Your task to perform on an android device: Add "macbook" to the cart on ebay.com Image 0: 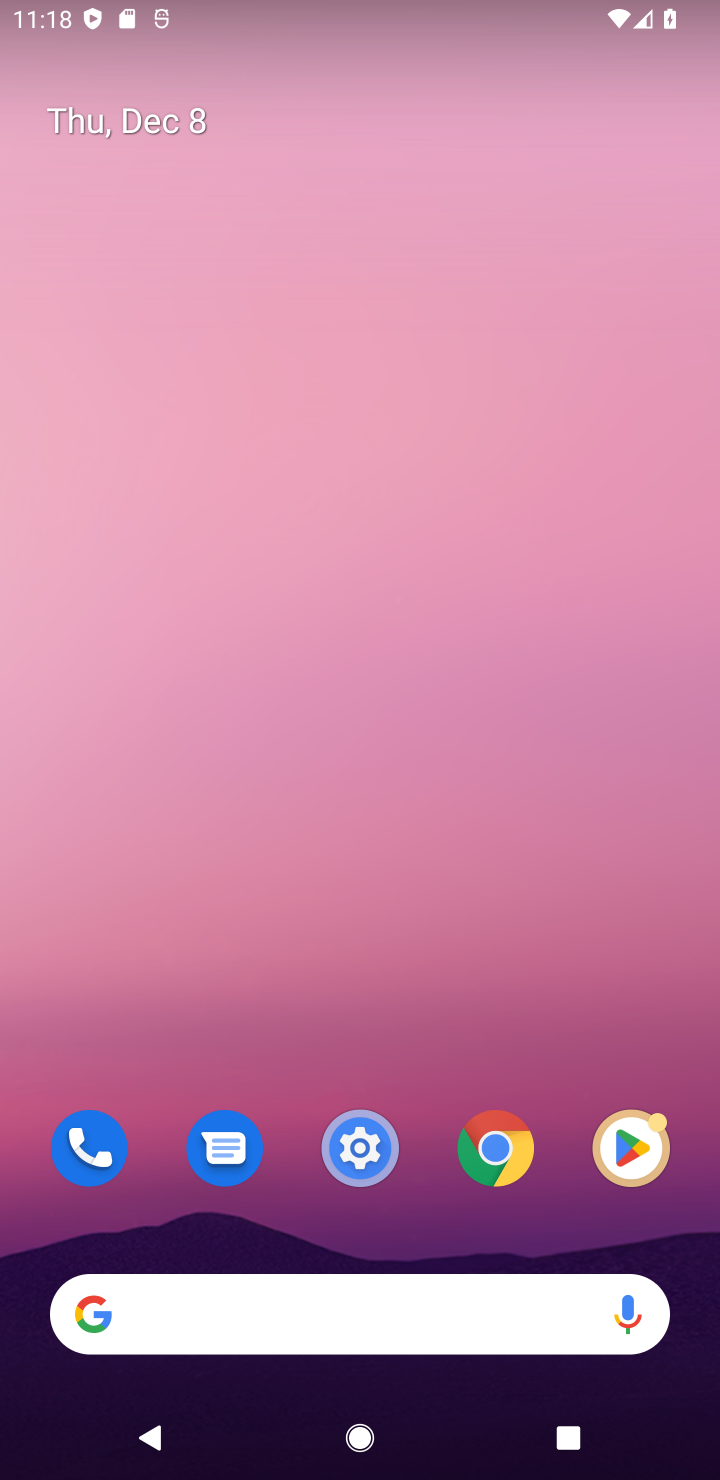
Step 0: click (319, 1310)
Your task to perform on an android device: Add "macbook" to the cart on ebay.com Image 1: 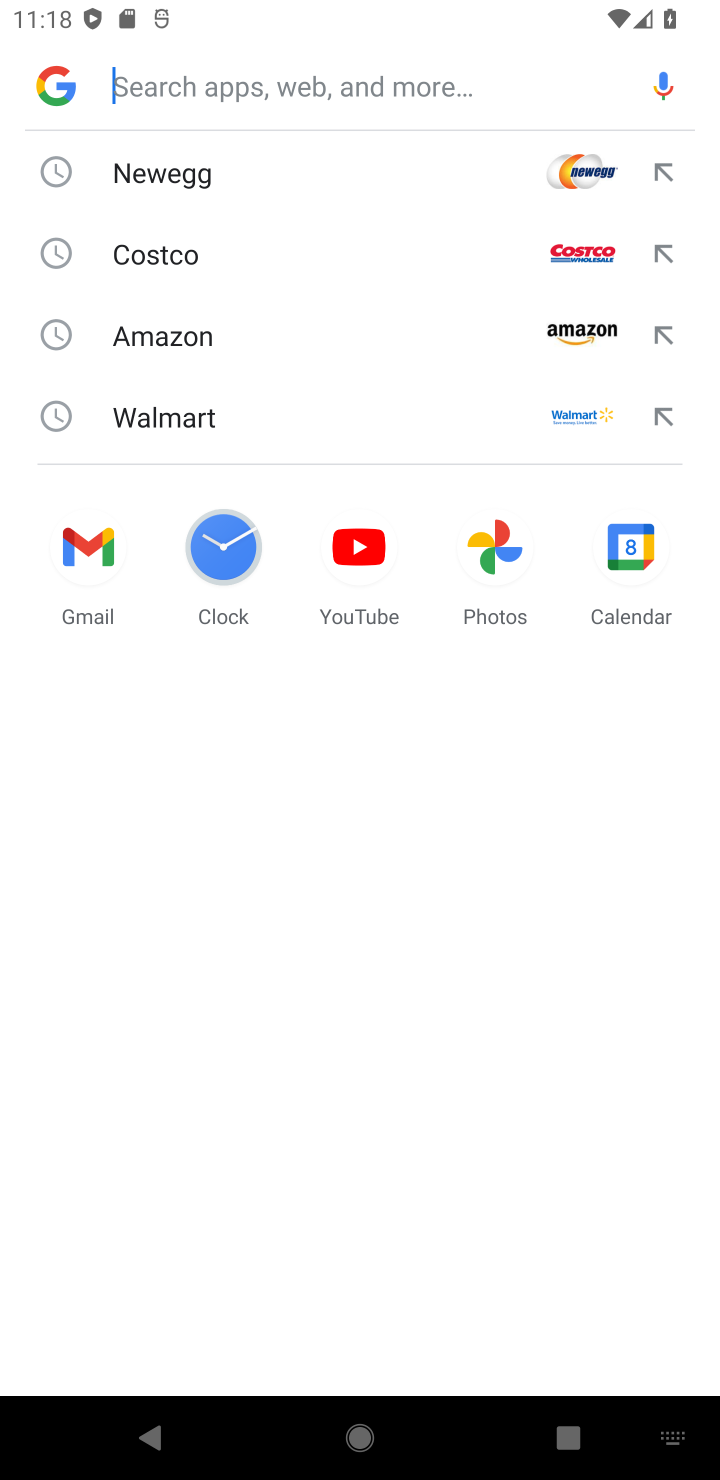
Step 1: type "ebay"
Your task to perform on an android device: Add "macbook" to the cart on ebay.com Image 2: 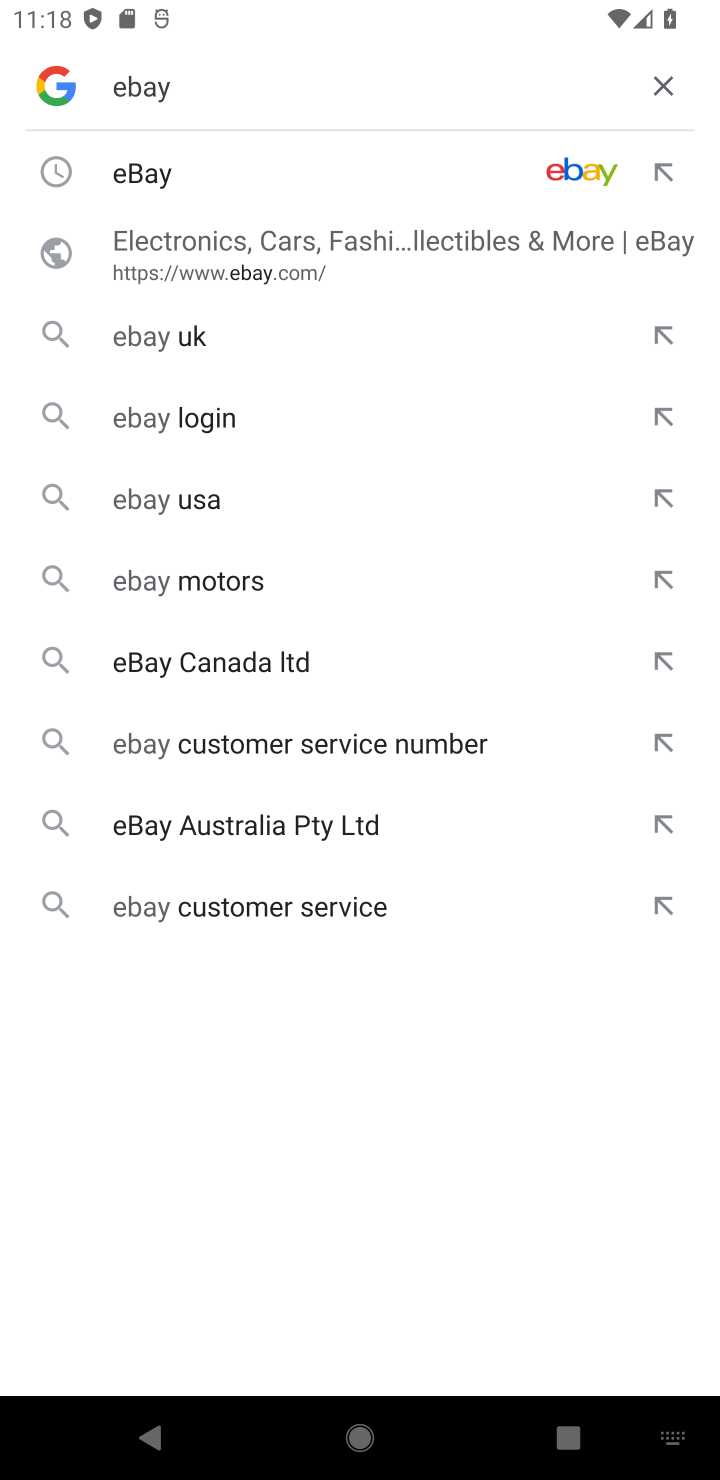
Step 2: click (142, 170)
Your task to perform on an android device: Add "macbook" to the cart on ebay.com Image 3: 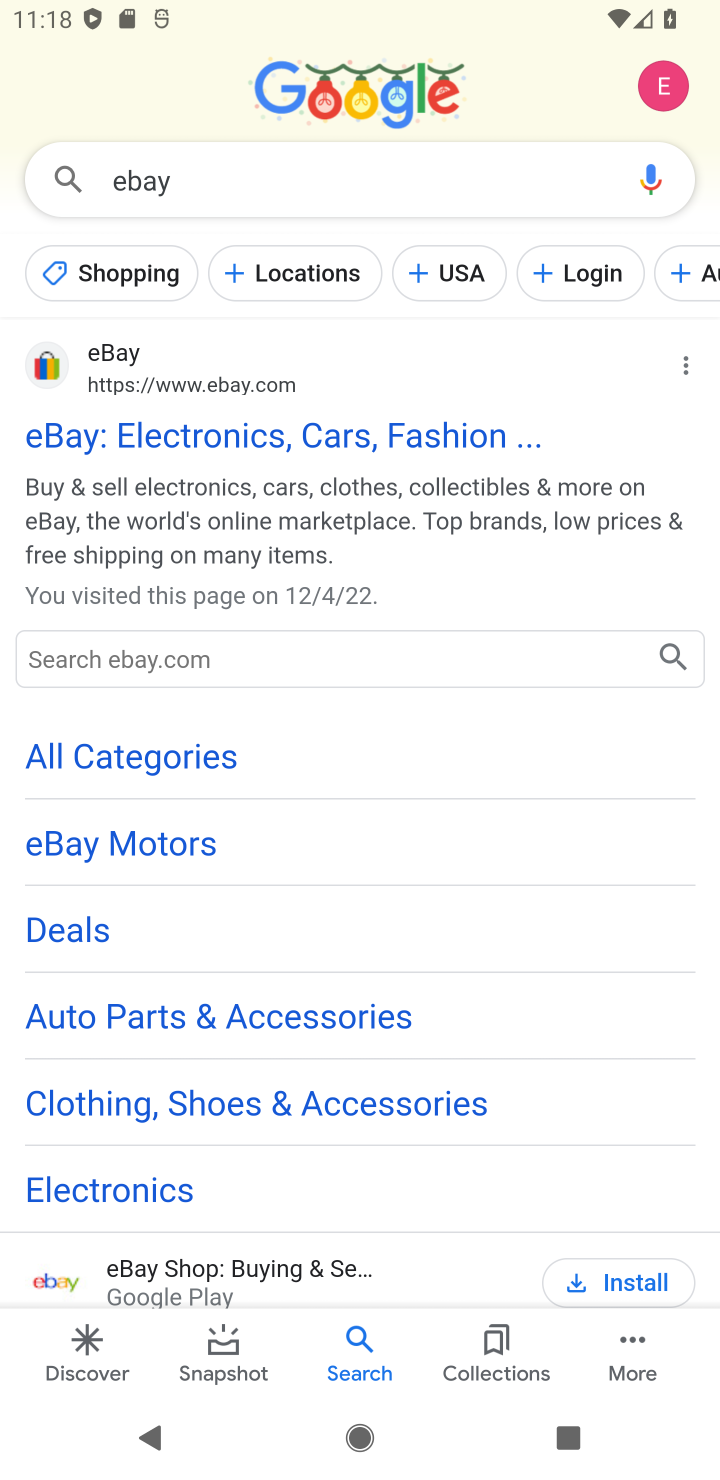
Step 3: click (133, 352)
Your task to perform on an android device: Add "macbook" to the cart on ebay.com Image 4: 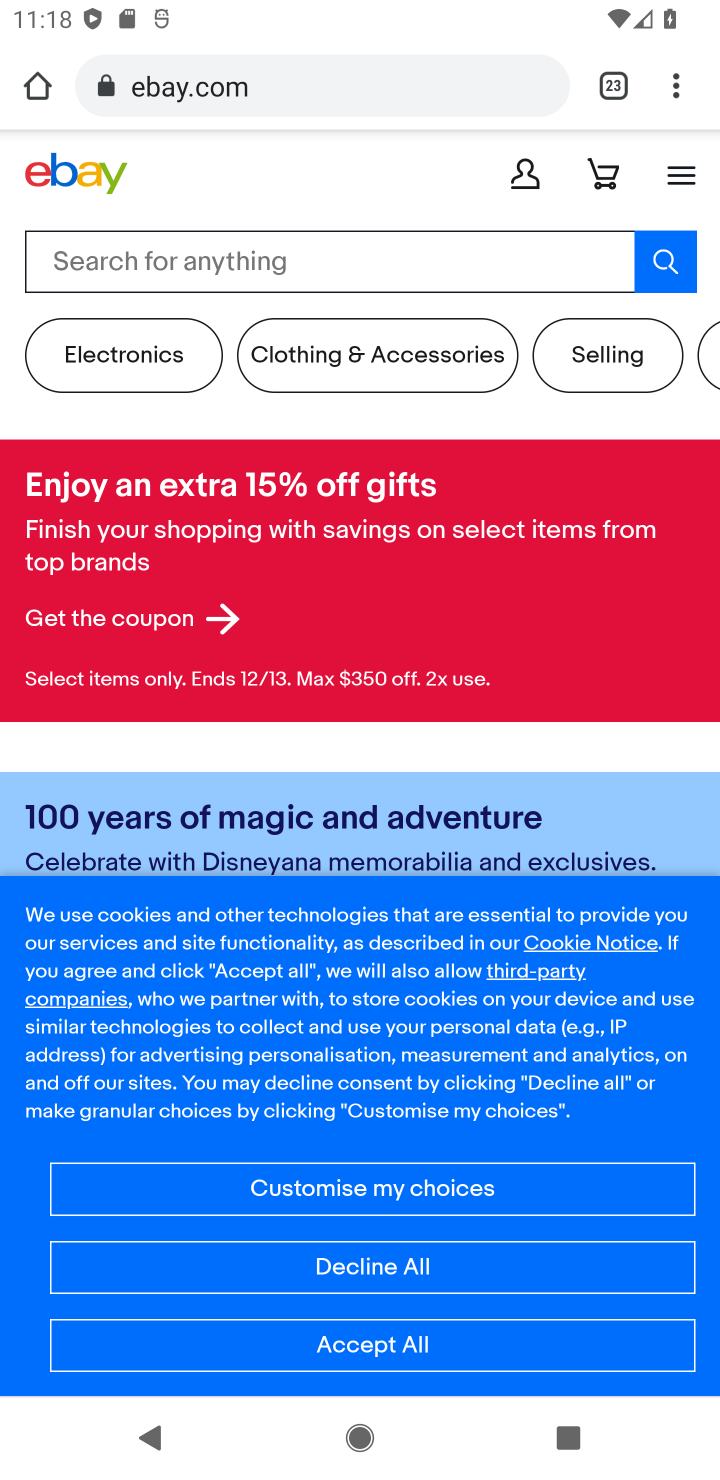
Step 4: click (280, 240)
Your task to perform on an android device: Add "macbook" to the cart on ebay.com Image 5: 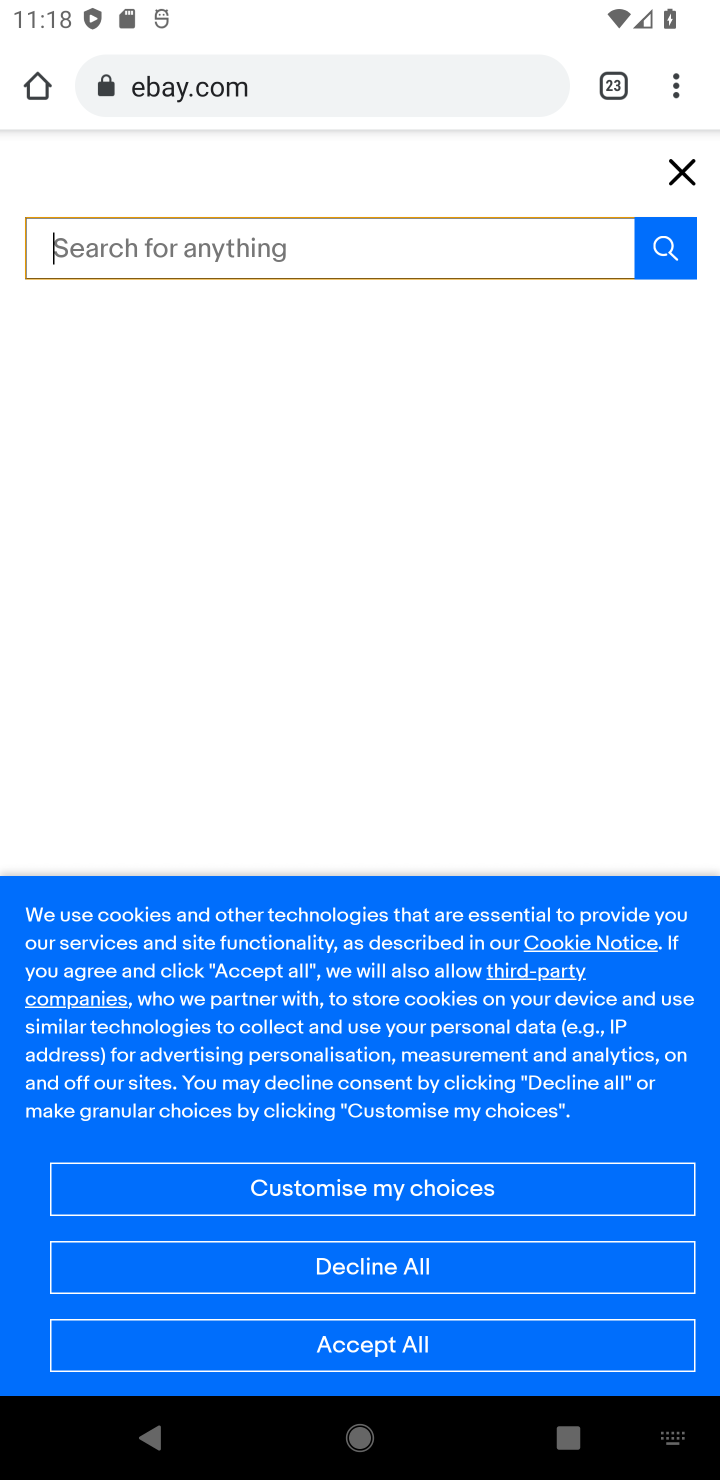
Step 5: type "macbook"
Your task to perform on an android device: Add "macbook" to the cart on ebay.com Image 6: 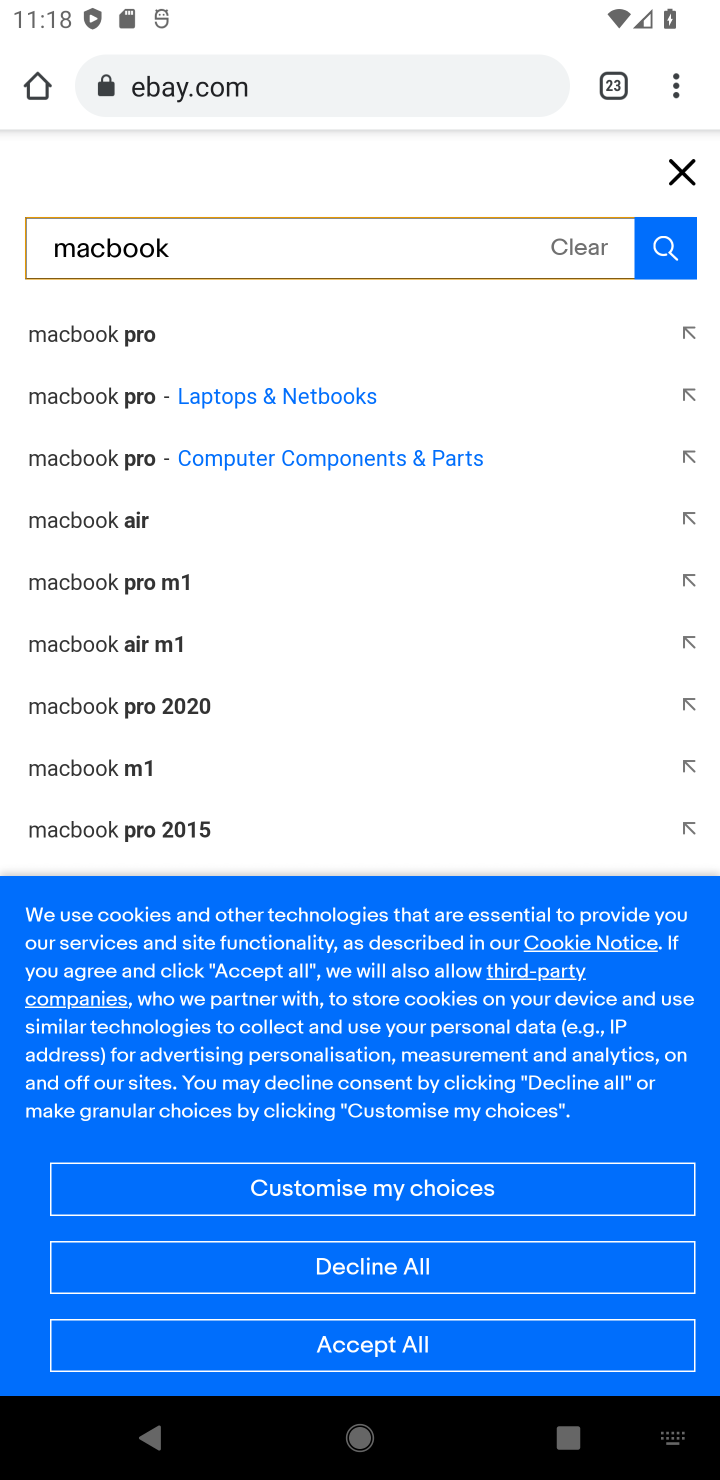
Step 6: click (649, 260)
Your task to perform on an android device: Add "macbook" to the cart on ebay.com Image 7: 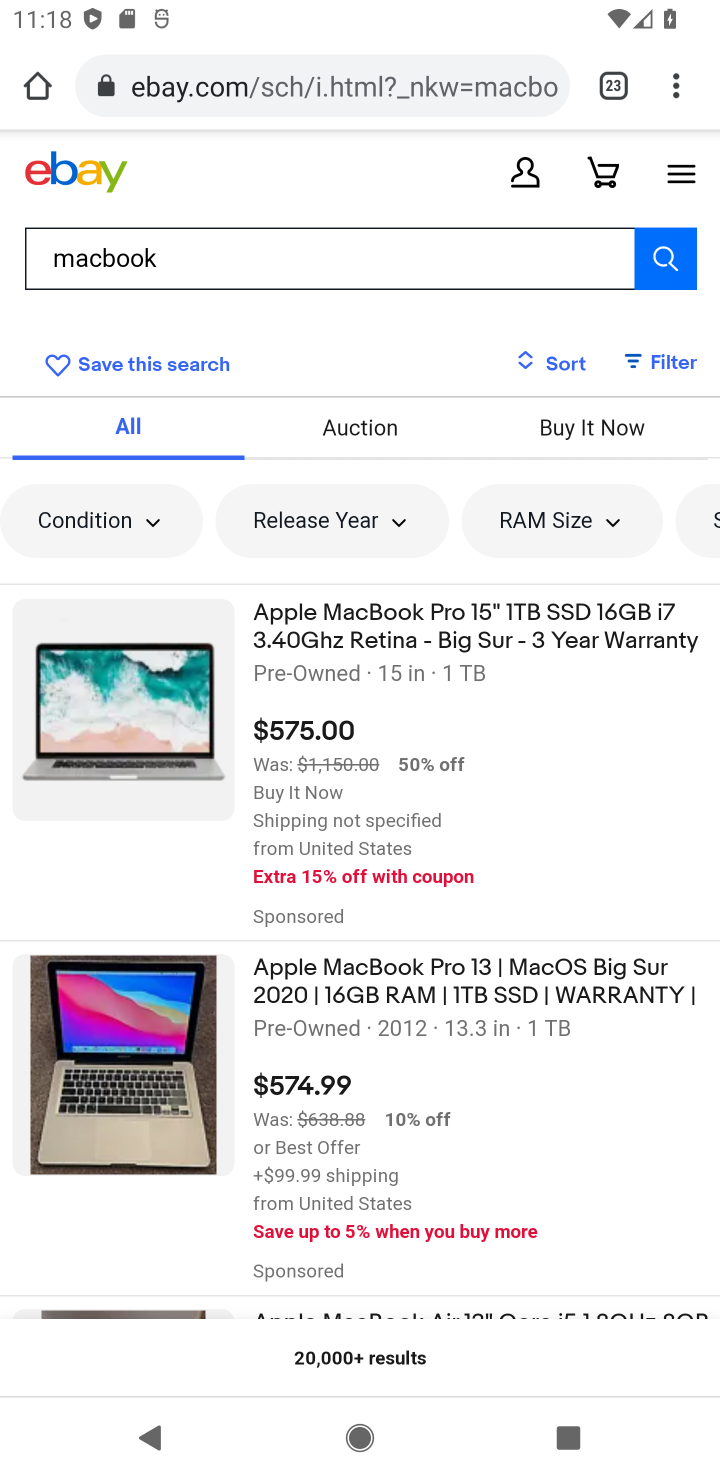
Step 7: click (396, 610)
Your task to perform on an android device: Add "macbook" to the cart on ebay.com Image 8: 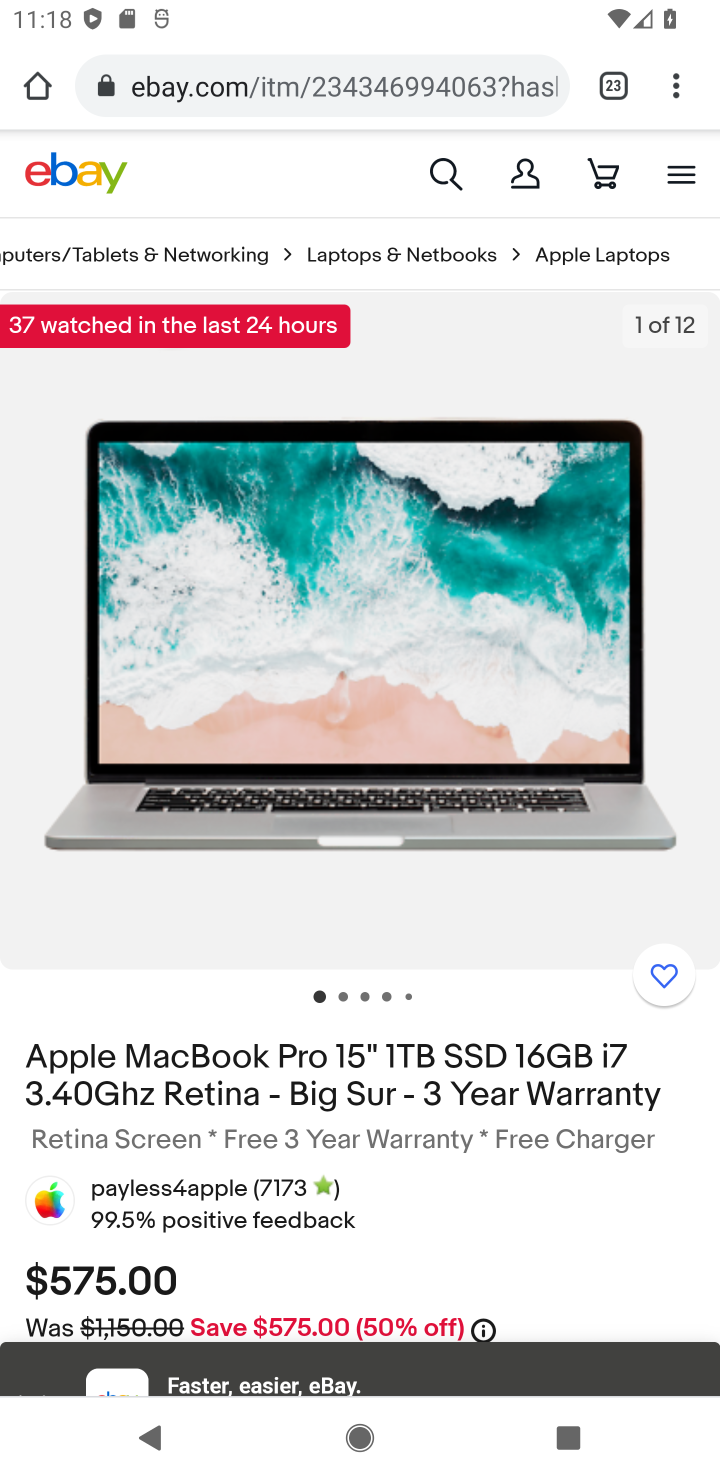
Step 8: drag from (438, 956) to (409, 657)
Your task to perform on an android device: Add "macbook" to the cart on ebay.com Image 9: 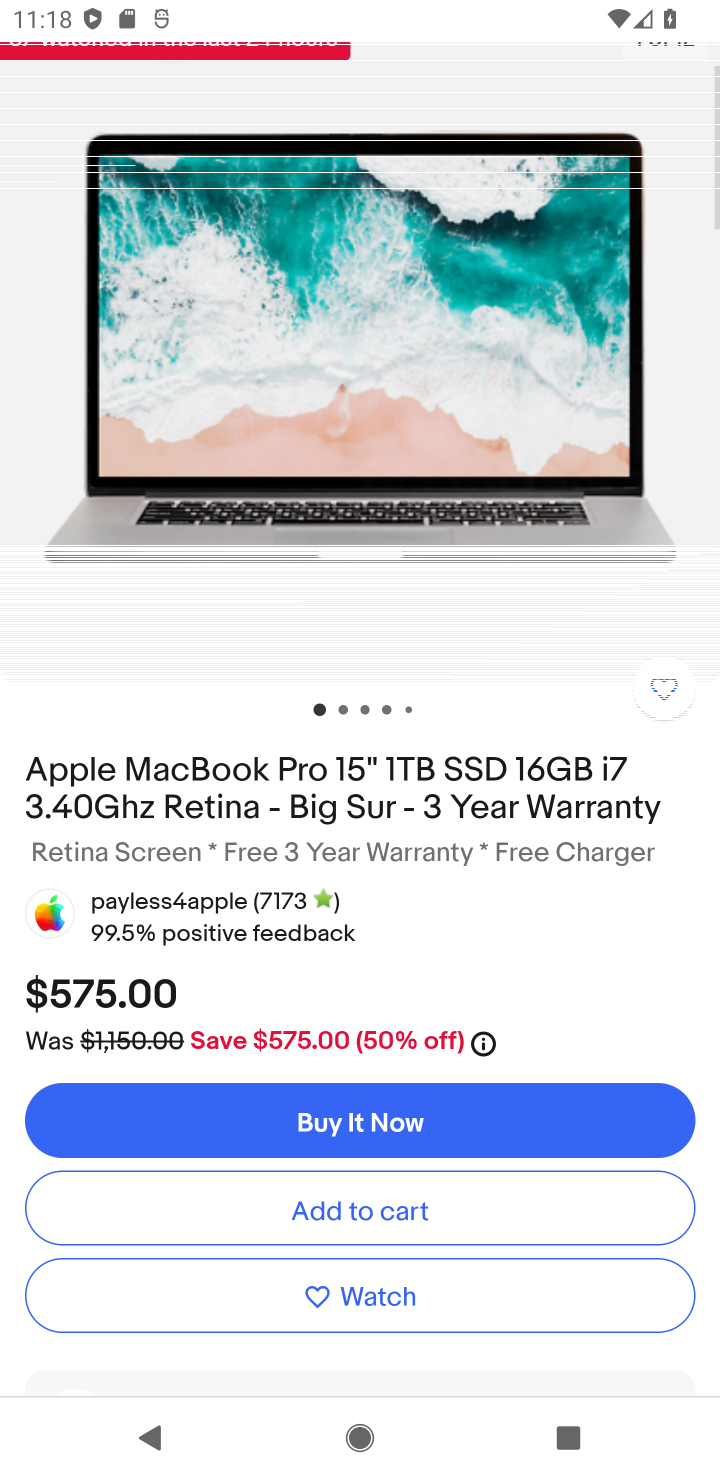
Step 9: click (357, 1201)
Your task to perform on an android device: Add "macbook" to the cart on ebay.com Image 10: 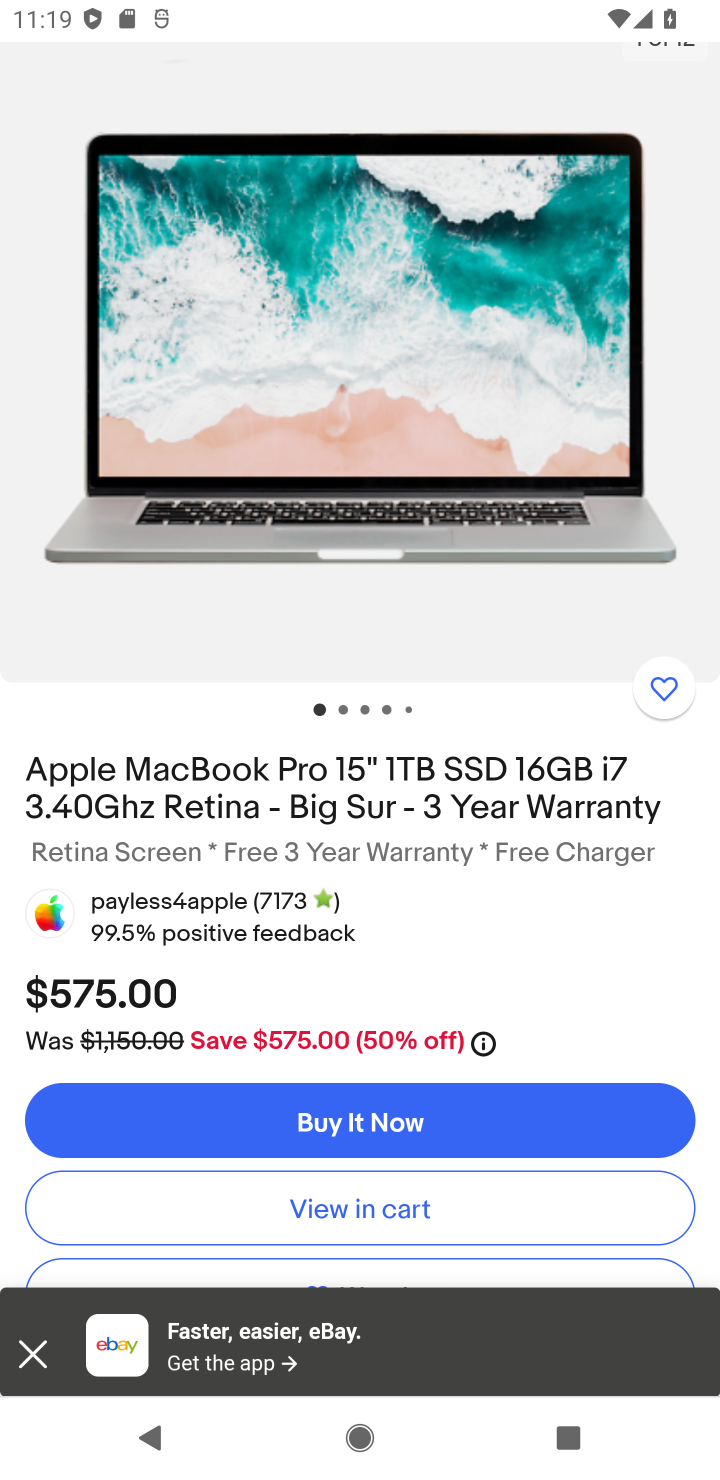
Step 10: task complete